Your task to perform on an android device: remove spam from my inbox in the gmail app Image 0: 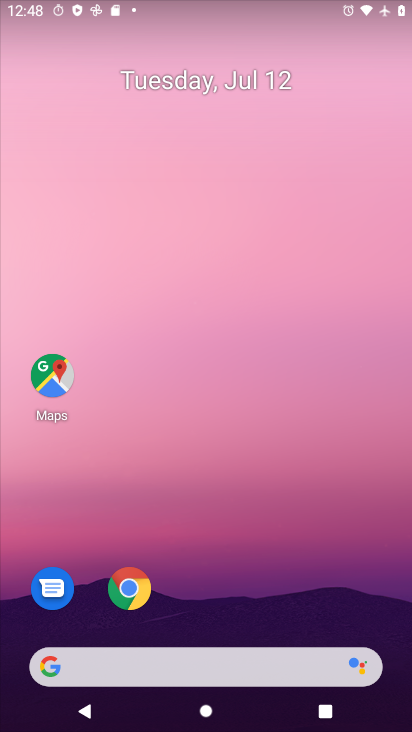
Step 0: press home button
Your task to perform on an android device: remove spam from my inbox in the gmail app Image 1: 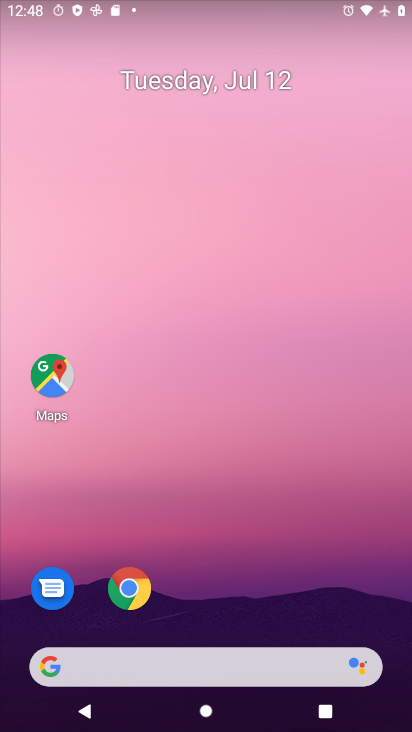
Step 1: drag from (223, 662) to (346, 42)
Your task to perform on an android device: remove spam from my inbox in the gmail app Image 2: 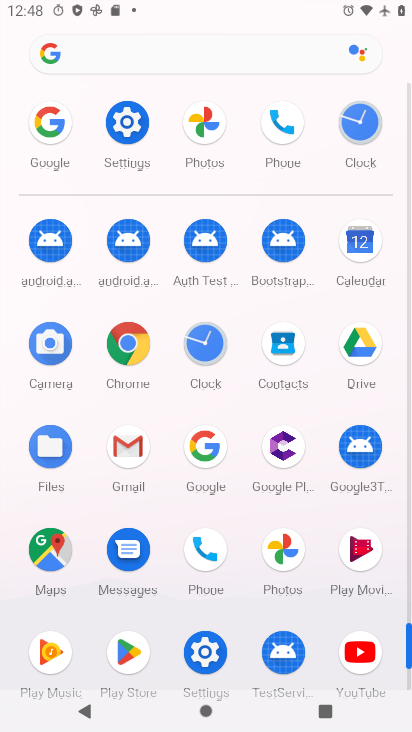
Step 2: click (135, 457)
Your task to perform on an android device: remove spam from my inbox in the gmail app Image 3: 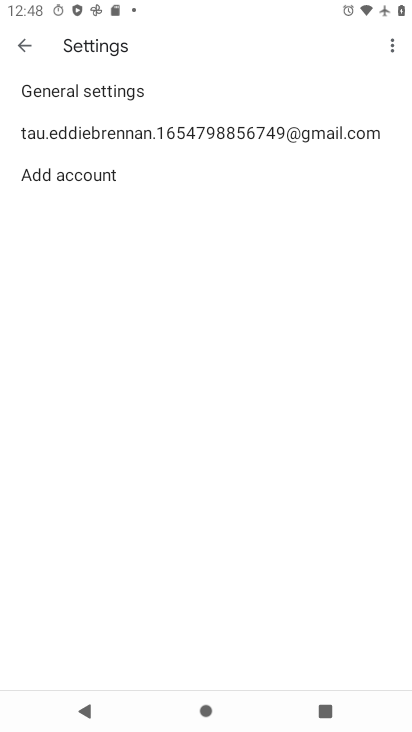
Step 3: click (20, 45)
Your task to perform on an android device: remove spam from my inbox in the gmail app Image 4: 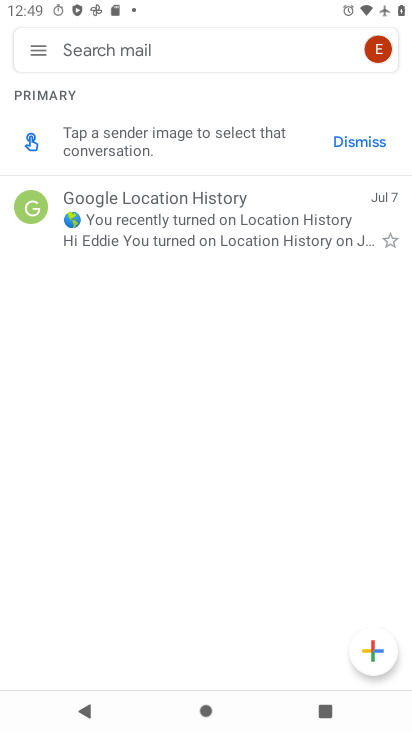
Step 4: click (30, 44)
Your task to perform on an android device: remove spam from my inbox in the gmail app Image 5: 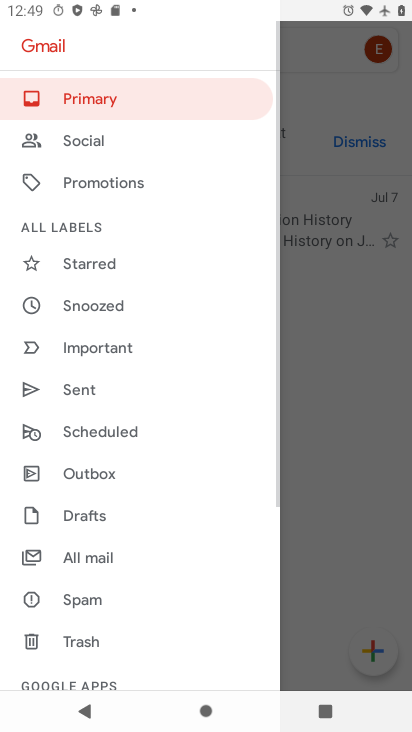
Step 5: drag from (129, 572) to (223, 271)
Your task to perform on an android device: remove spam from my inbox in the gmail app Image 6: 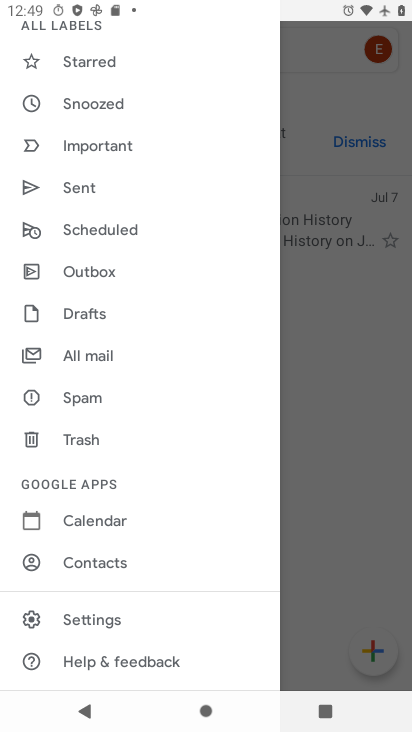
Step 6: click (95, 401)
Your task to perform on an android device: remove spam from my inbox in the gmail app Image 7: 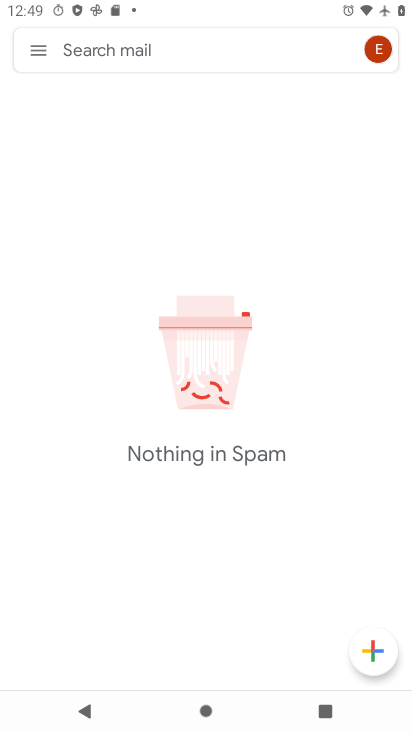
Step 7: task complete